Your task to perform on an android device: read, delete, or share a saved page in the chrome app Image 0: 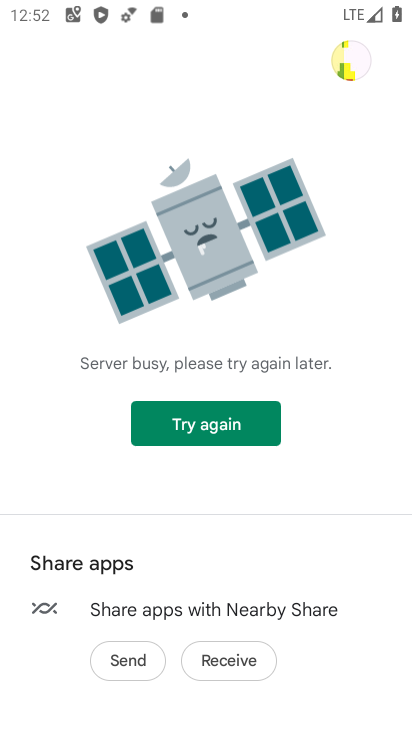
Step 0: press home button
Your task to perform on an android device: read, delete, or share a saved page in the chrome app Image 1: 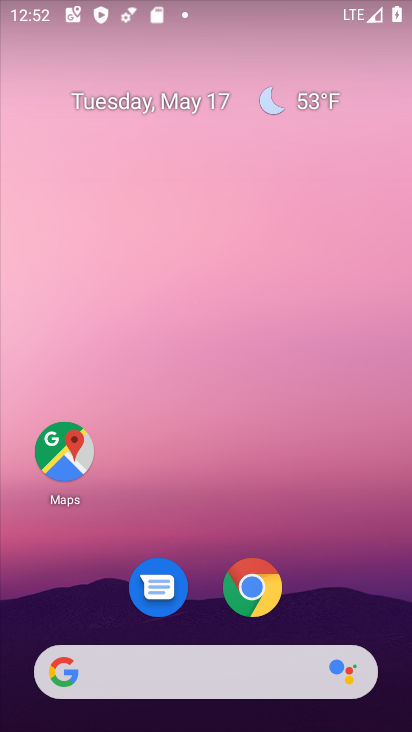
Step 1: click (262, 594)
Your task to perform on an android device: read, delete, or share a saved page in the chrome app Image 2: 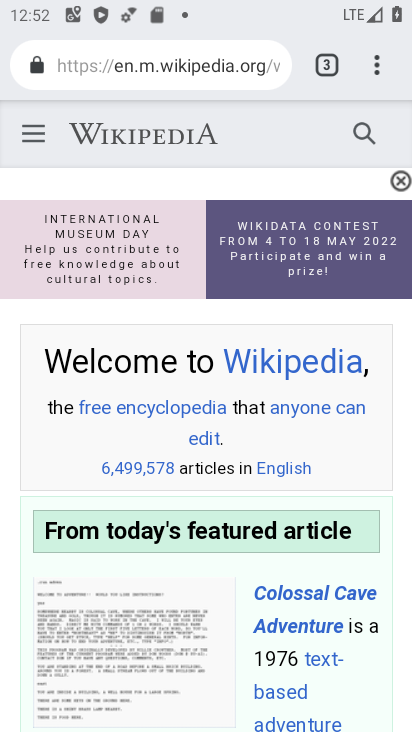
Step 2: click (370, 60)
Your task to perform on an android device: read, delete, or share a saved page in the chrome app Image 3: 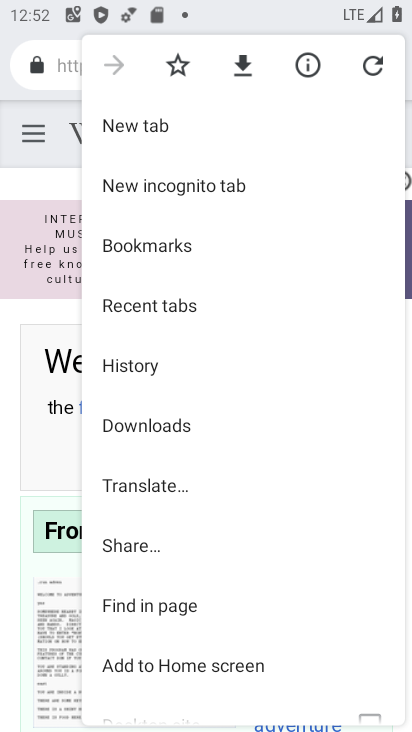
Step 3: click (154, 415)
Your task to perform on an android device: read, delete, or share a saved page in the chrome app Image 4: 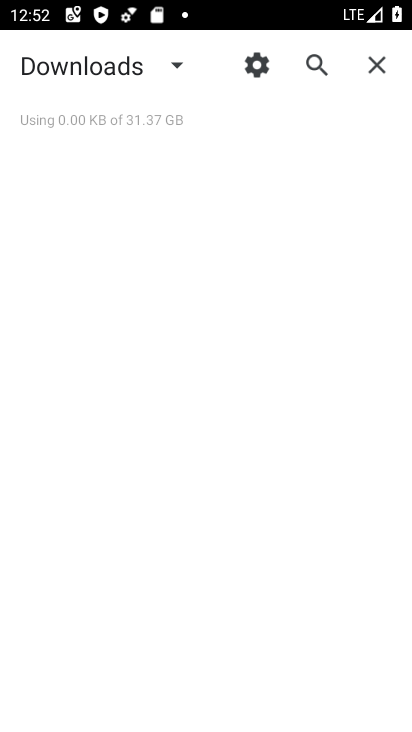
Step 4: task complete